Your task to perform on an android device: change the upload size in google photos Image 0: 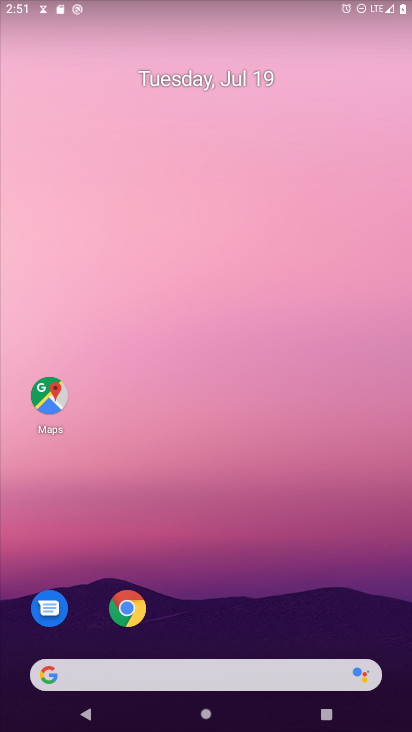
Step 0: drag from (265, 667) to (398, 531)
Your task to perform on an android device: change the upload size in google photos Image 1: 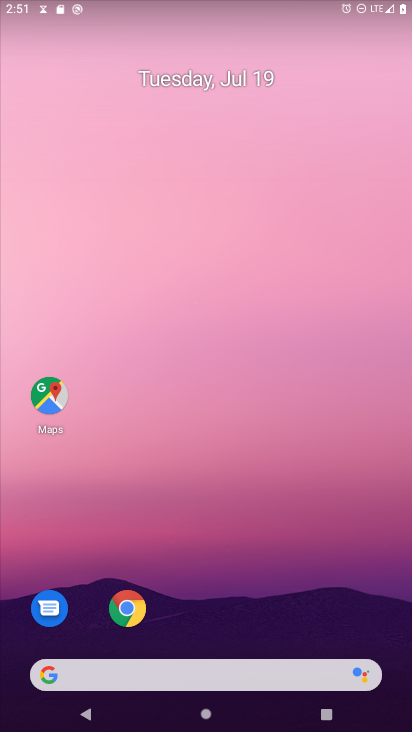
Step 1: drag from (274, 633) to (344, 29)
Your task to perform on an android device: change the upload size in google photos Image 2: 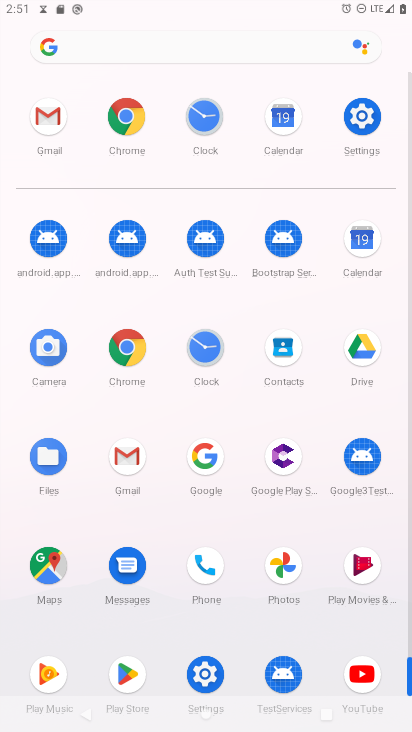
Step 2: click (289, 557)
Your task to perform on an android device: change the upload size in google photos Image 3: 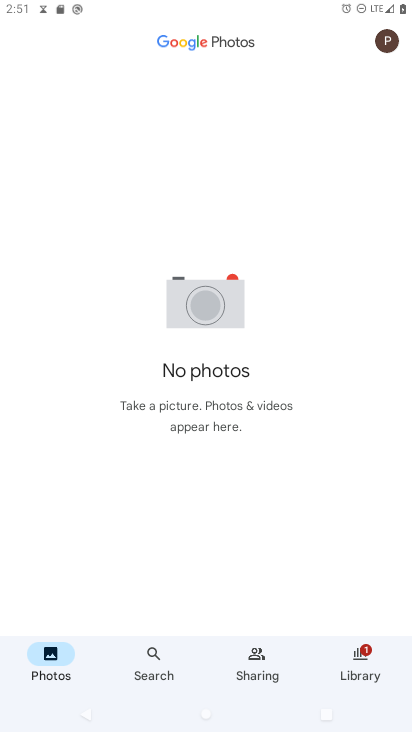
Step 3: click (393, 36)
Your task to perform on an android device: change the upload size in google photos Image 4: 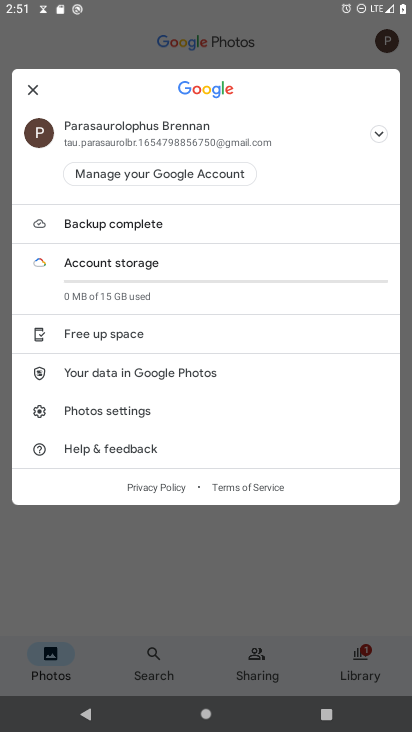
Step 4: click (161, 412)
Your task to perform on an android device: change the upload size in google photos Image 5: 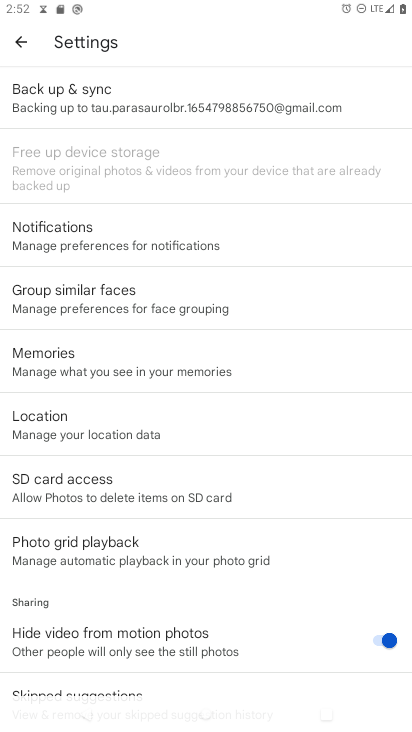
Step 5: click (156, 93)
Your task to perform on an android device: change the upload size in google photos Image 6: 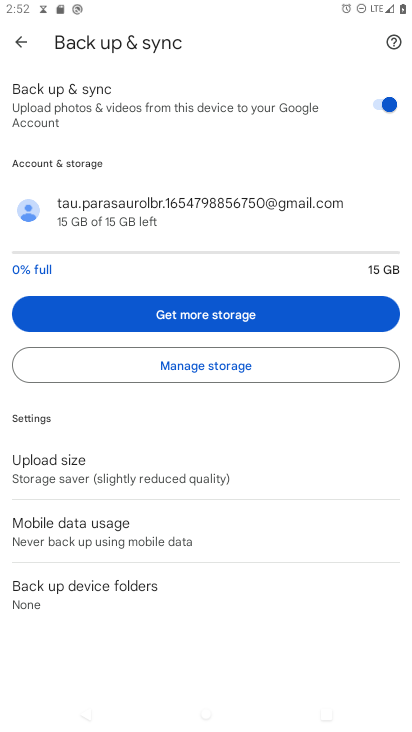
Step 6: click (123, 489)
Your task to perform on an android device: change the upload size in google photos Image 7: 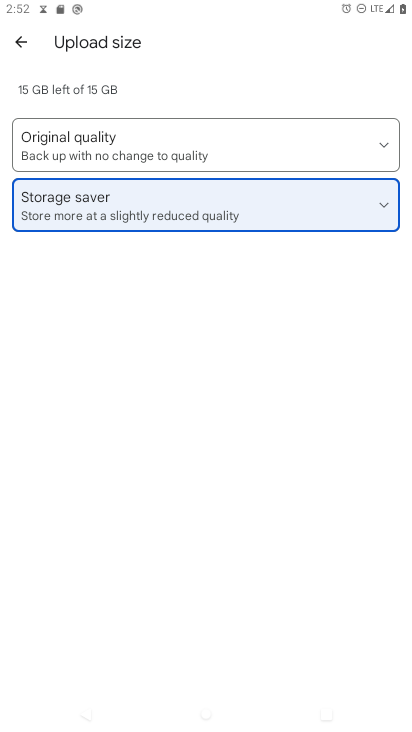
Step 7: click (94, 133)
Your task to perform on an android device: change the upload size in google photos Image 8: 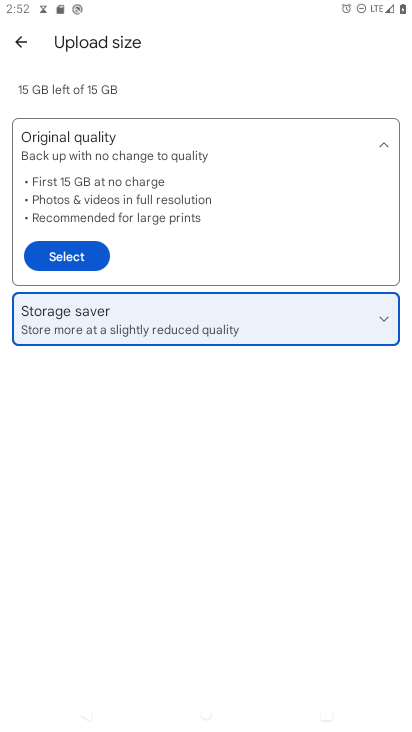
Step 8: click (62, 260)
Your task to perform on an android device: change the upload size in google photos Image 9: 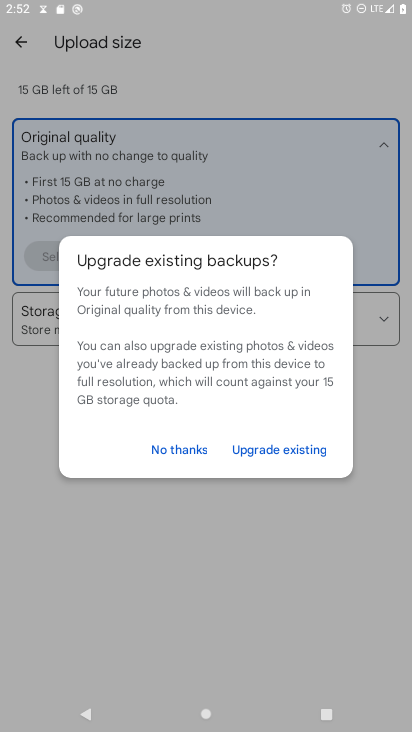
Step 9: click (286, 442)
Your task to perform on an android device: change the upload size in google photos Image 10: 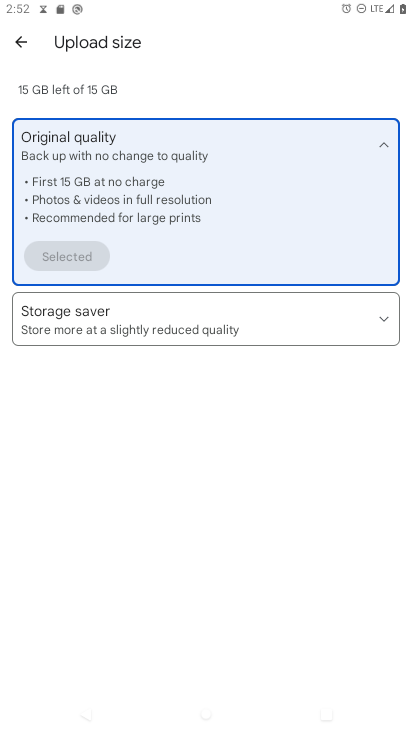
Step 10: task complete